Your task to perform on an android device: Open notification settings Image 0: 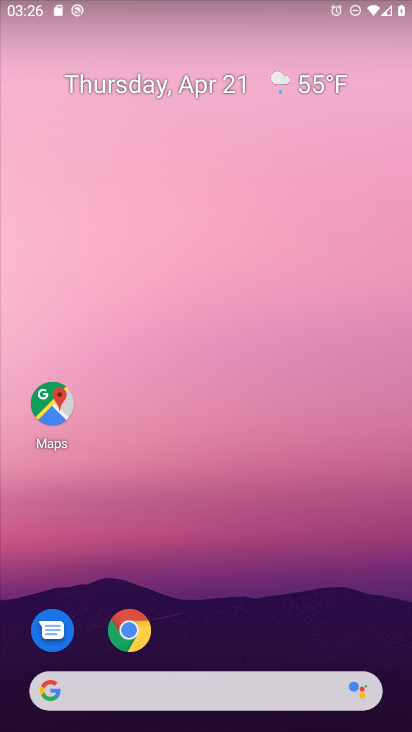
Step 0: drag from (275, 585) to (294, 45)
Your task to perform on an android device: Open notification settings Image 1: 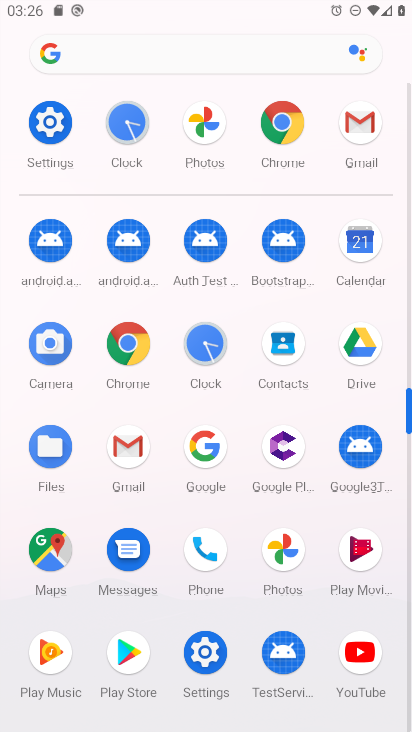
Step 1: task complete